Your task to perform on an android device: turn on airplane mode Image 0: 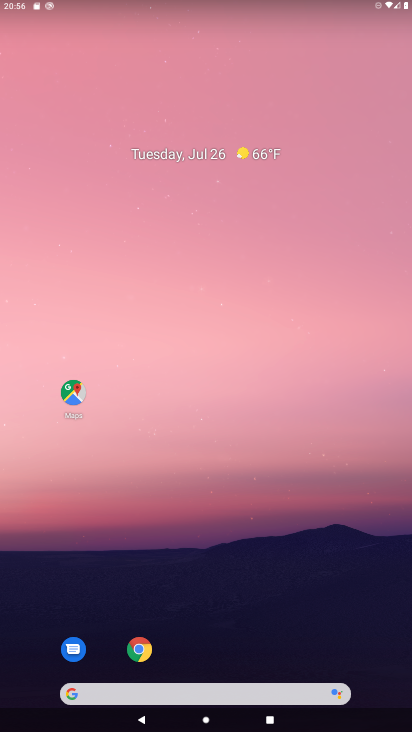
Step 0: drag from (257, 565) to (281, 38)
Your task to perform on an android device: turn on airplane mode Image 1: 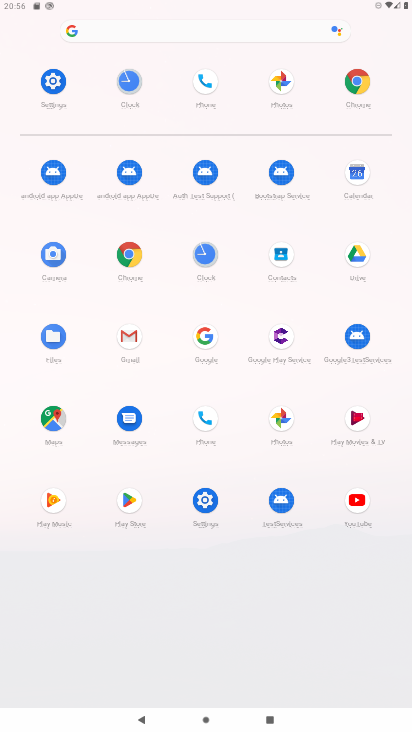
Step 1: click (55, 81)
Your task to perform on an android device: turn on airplane mode Image 2: 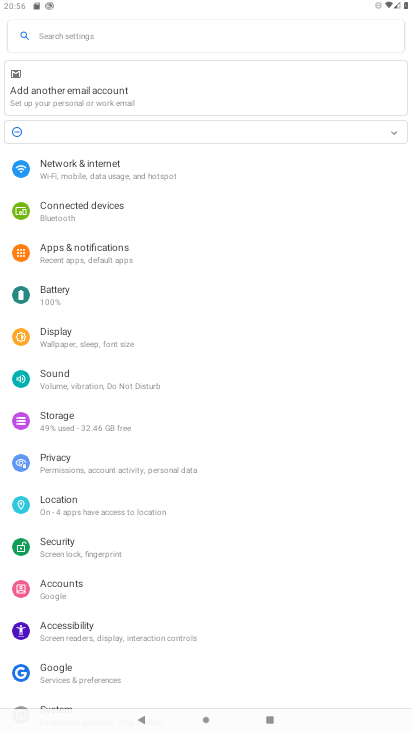
Step 2: click (141, 162)
Your task to perform on an android device: turn on airplane mode Image 3: 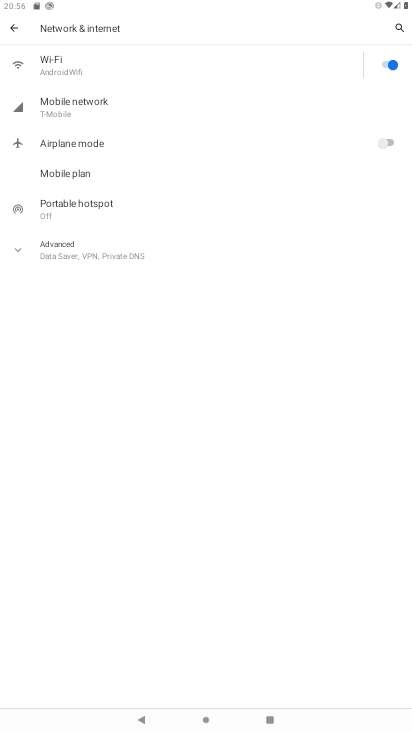
Step 3: click (376, 138)
Your task to perform on an android device: turn on airplane mode Image 4: 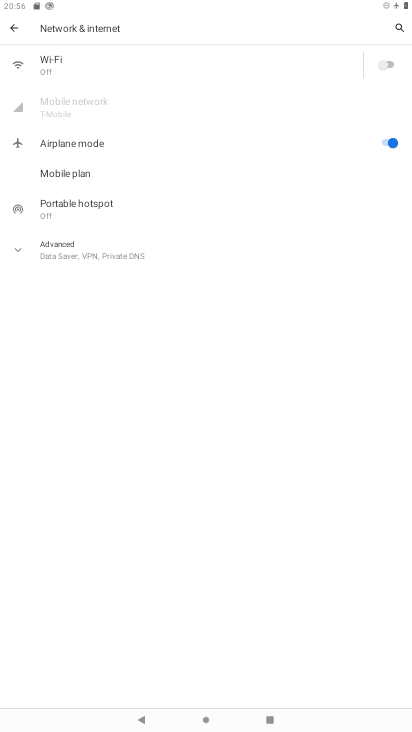
Step 4: task complete